Your task to perform on an android device: turn on bluetooth scan Image 0: 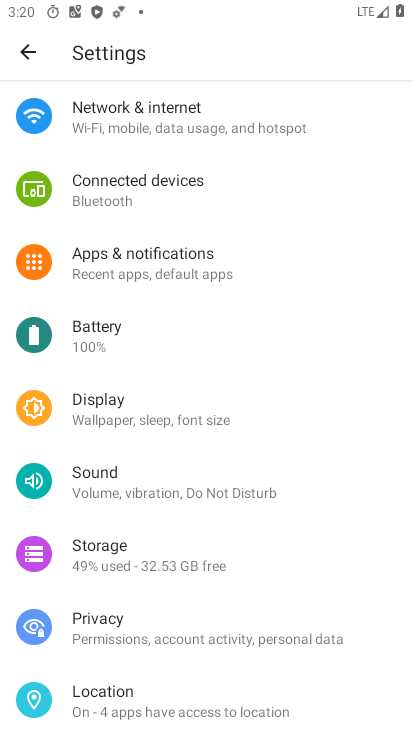
Step 0: click (107, 700)
Your task to perform on an android device: turn on bluetooth scan Image 1: 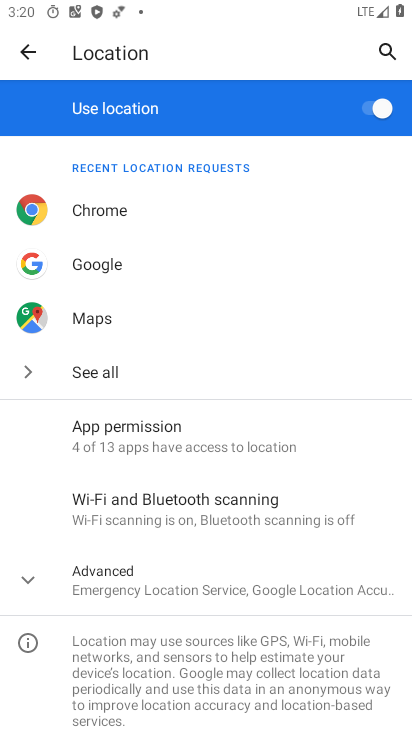
Step 1: click (146, 502)
Your task to perform on an android device: turn on bluetooth scan Image 2: 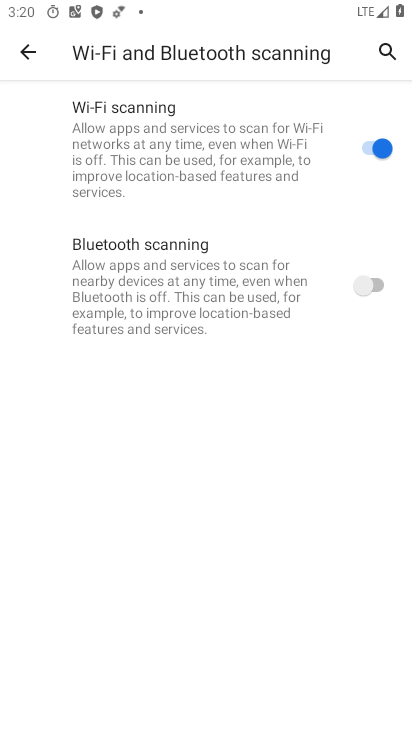
Step 2: click (379, 281)
Your task to perform on an android device: turn on bluetooth scan Image 3: 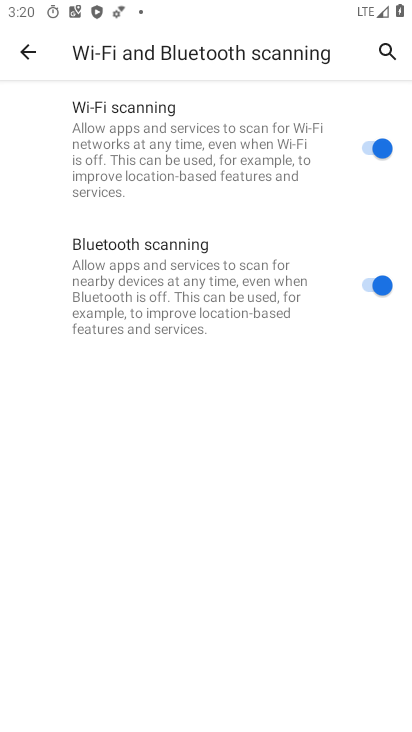
Step 3: task complete